Your task to perform on an android device: Open the phone app and click the voicemail tab. Image 0: 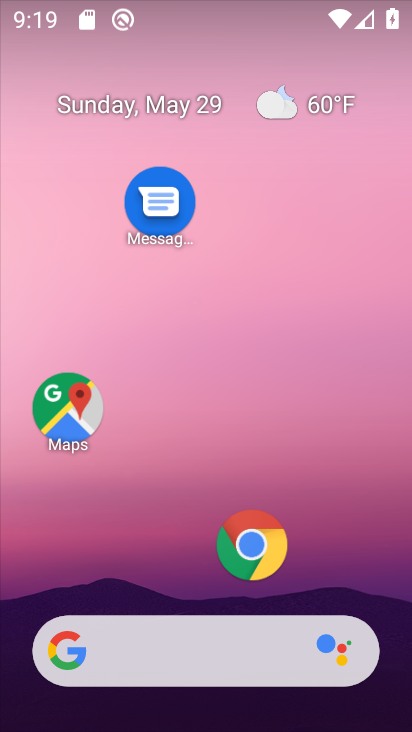
Step 0: drag from (208, 609) to (275, 219)
Your task to perform on an android device: Open the phone app and click the voicemail tab. Image 1: 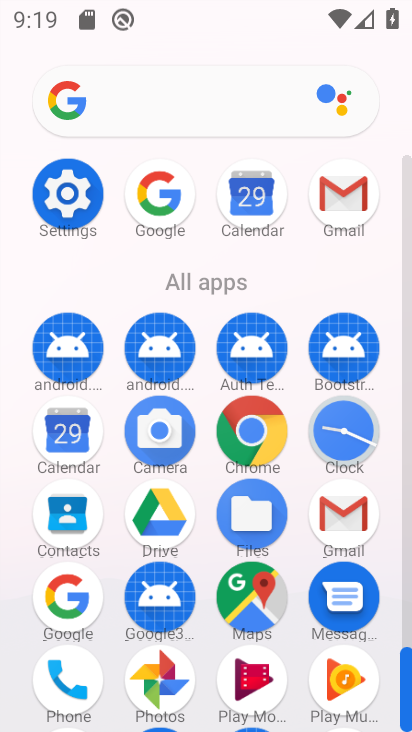
Step 1: drag from (114, 647) to (167, 153)
Your task to perform on an android device: Open the phone app and click the voicemail tab. Image 2: 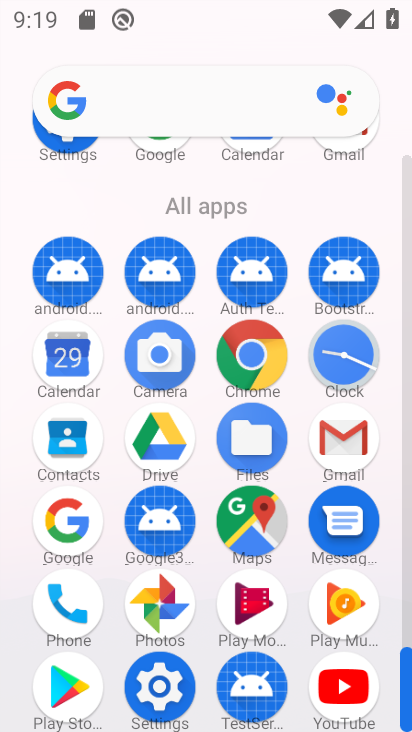
Step 2: click (81, 631)
Your task to perform on an android device: Open the phone app and click the voicemail tab. Image 3: 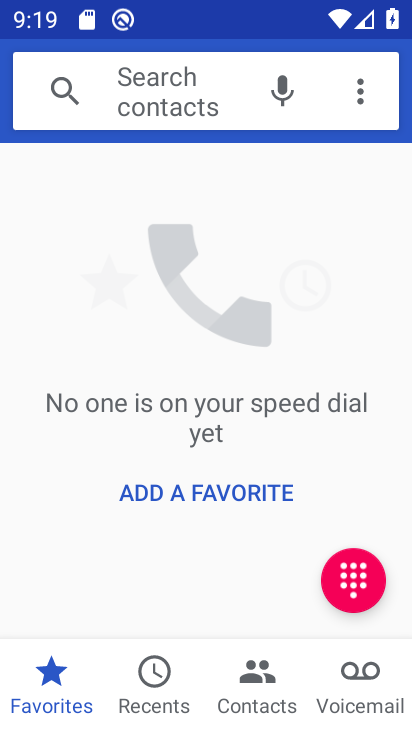
Step 3: click (340, 684)
Your task to perform on an android device: Open the phone app and click the voicemail tab. Image 4: 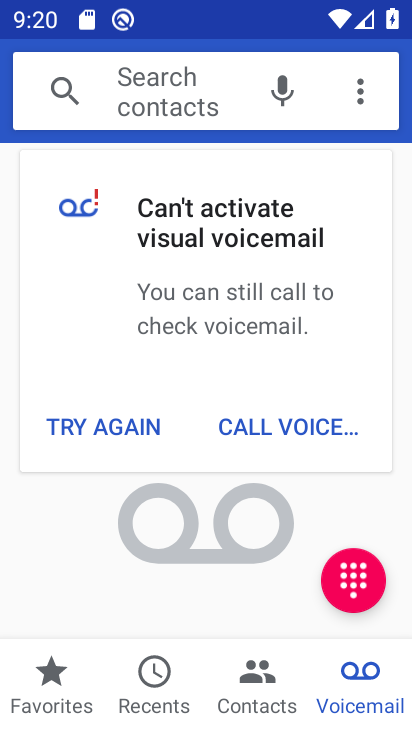
Step 4: task complete